Your task to perform on an android device: Open Chrome and go to the settings page Image 0: 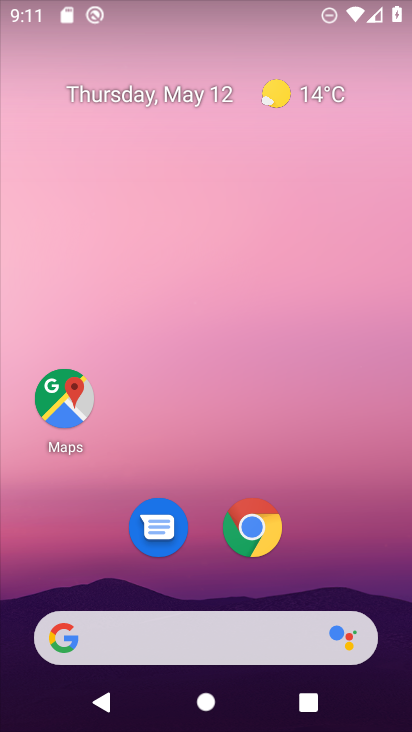
Step 0: click (266, 547)
Your task to perform on an android device: Open Chrome and go to the settings page Image 1: 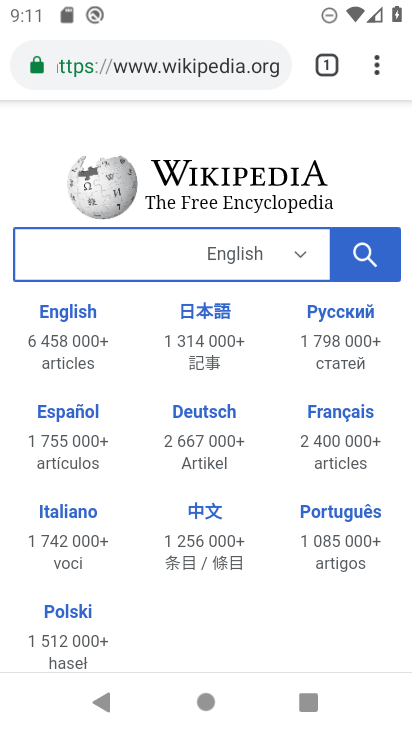
Step 1: click (367, 77)
Your task to perform on an android device: Open Chrome and go to the settings page Image 2: 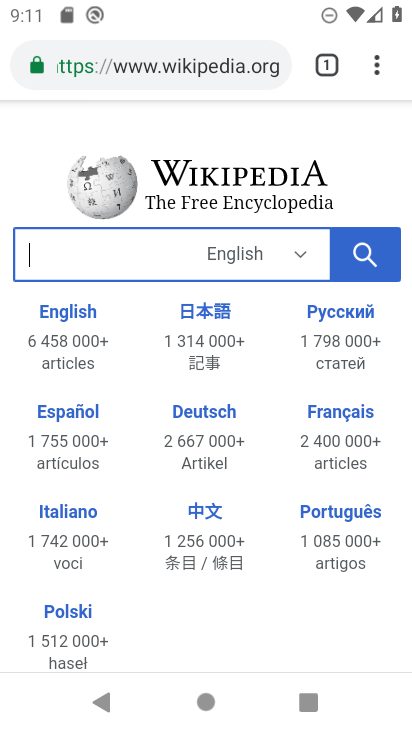
Step 2: click (376, 78)
Your task to perform on an android device: Open Chrome and go to the settings page Image 3: 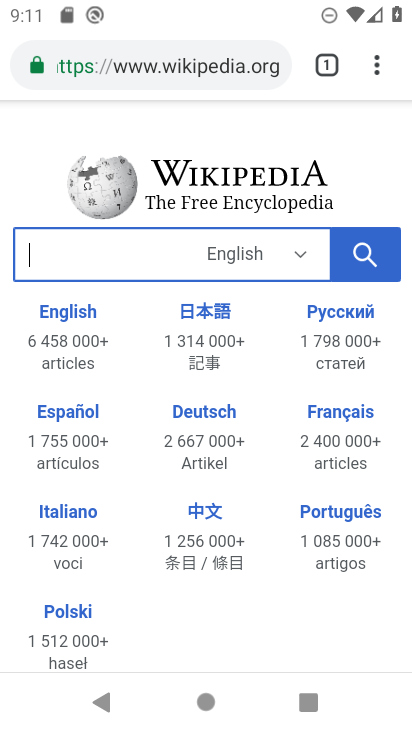
Step 3: click (373, 79)
Your task to perform on an android device: Open Chrome and go to the settings page Image 4: 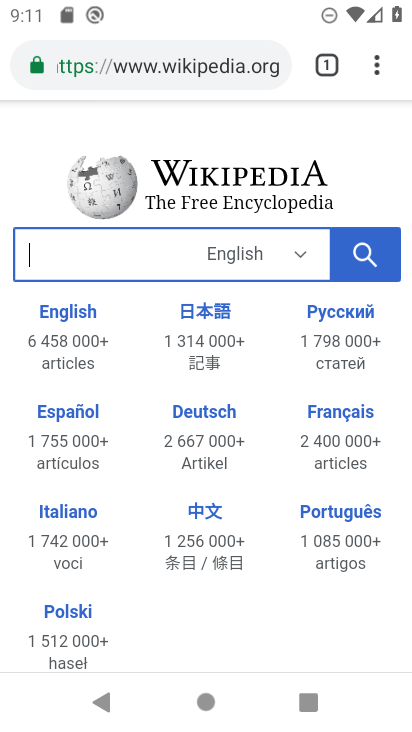
Step 4: click (386, 82)
Your task to perform on an android device: Open Chrome and go to the settings page Image 5: 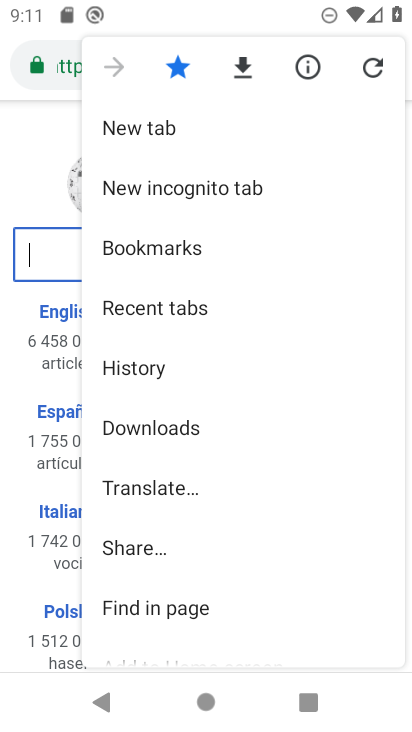
Step 5: drag from (183, 648) to (219, 317)
Your task to perform on an android device: Open Chrome and go to the settings page Image 6: 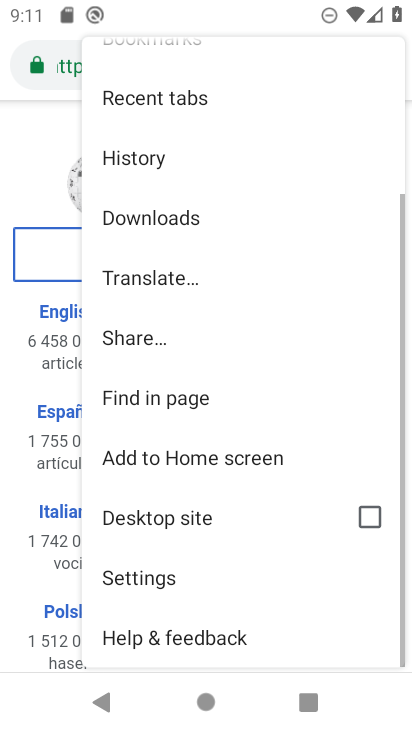
Step 6: click (193, 566)
Your task to perform on an android device: Open Chrome and go to the settings page Image 7: 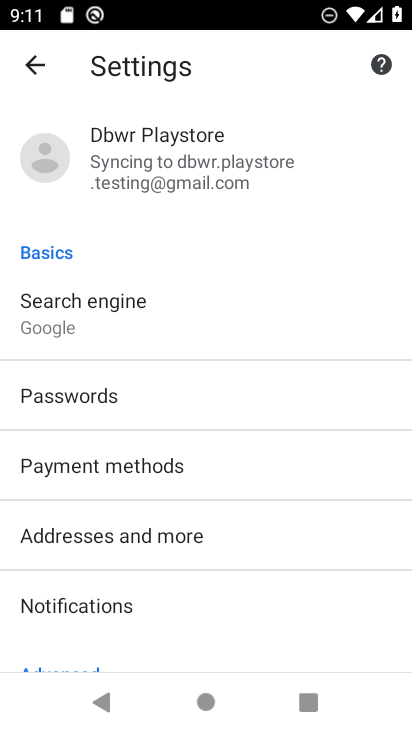
Step 7: task complete